Your task to perform on an android device: Open Amazon Image 0: 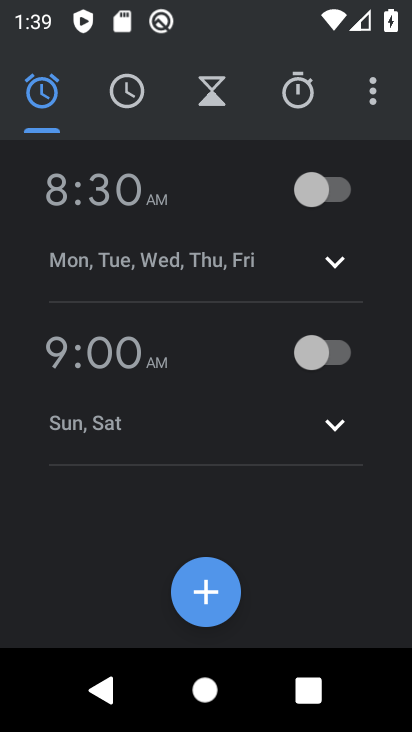
Step 0: press home button
Your task to perform on an android device: Open Amazon Image 1: 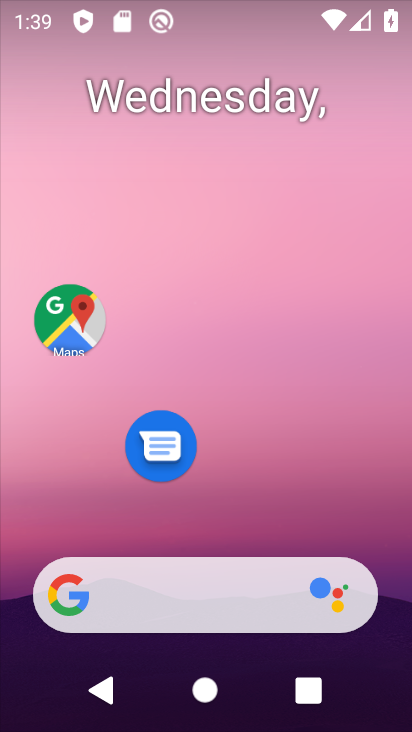
Step 1: drag from (314, 539) to (190, 116)
Your task to perform on an android device: Open Amazon Image 2: 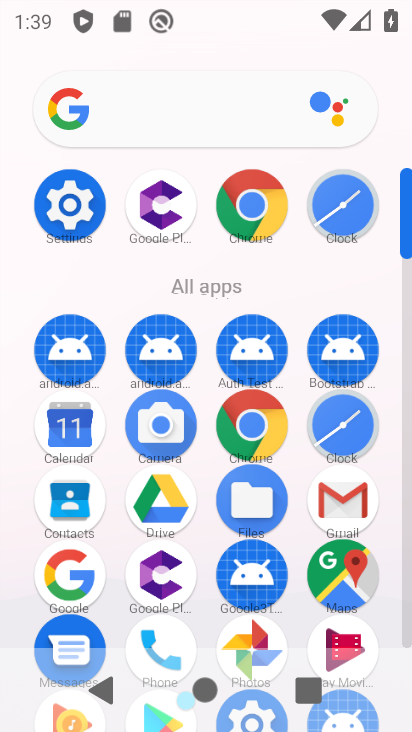
Step 2: click (250, 412)
Your task to perform on an android device: Open Amazon Image 3: 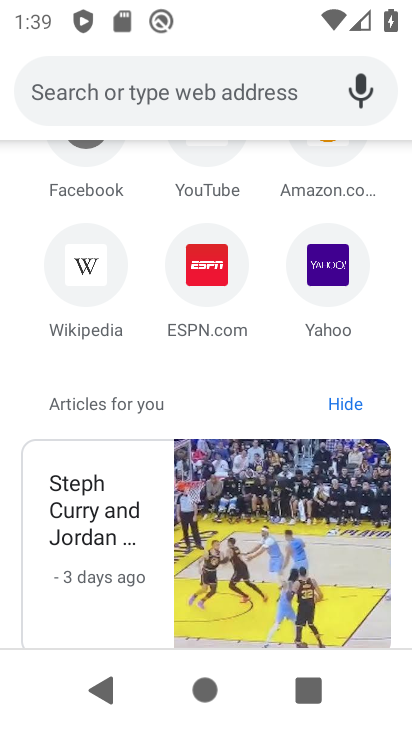
Step 3: click (338, 158)
Your task to perform on an android device: Open Amazon Image 4: 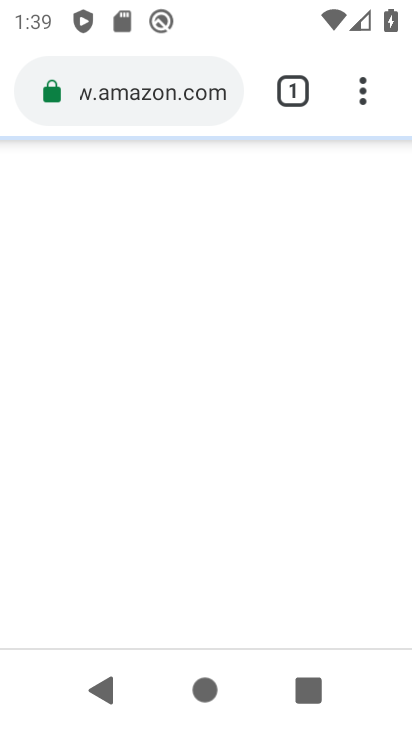
Step 4: task complete